Your task to perform on an android device: toggle improve location accuracy Image 0: 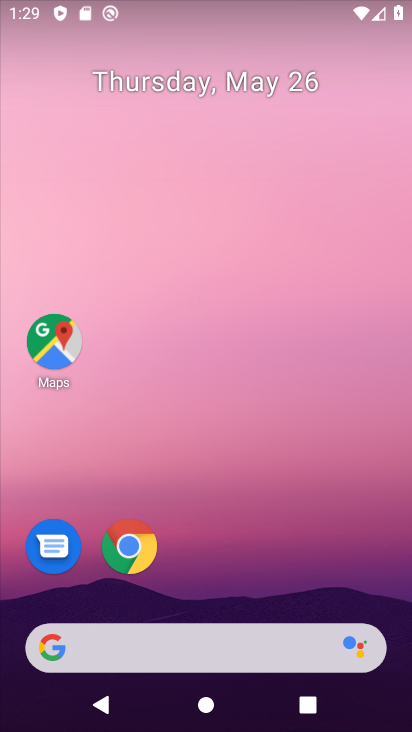
Step 0: drag from (203, 552) to (254, 46)
Your task to perform on an android device: toggle improve location accuracy Image 1: 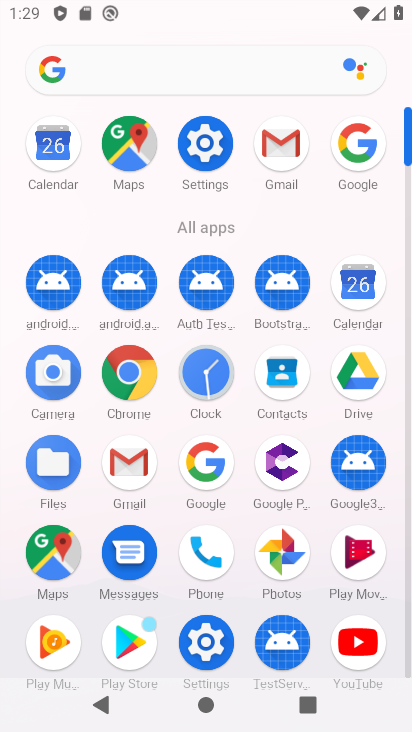
Step 1: click (211, 139)
Your task to perform on an android device: toggle improve location accuracy Image 2: 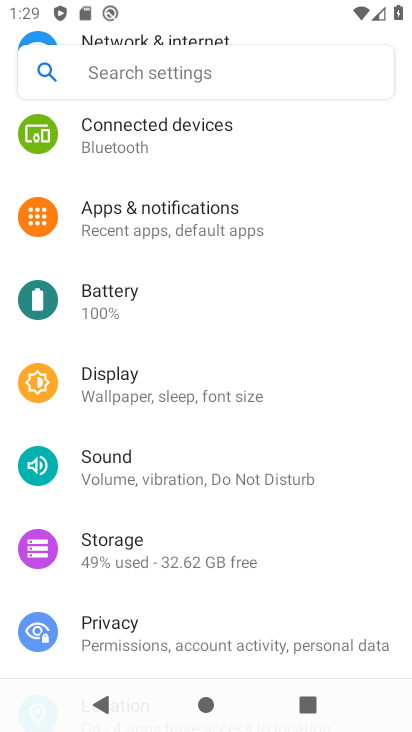
Step 2: drag from (213, 541) to (215, 356)
Your task to perform on an android device: toggle improve location accuracy Image 3: 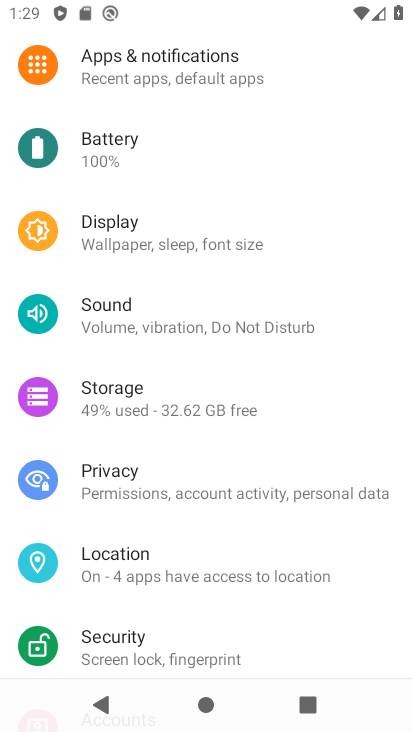
Step 3: click (177, 574)
Your task to perform on an android device: toggle improve location accuracy Image 4: 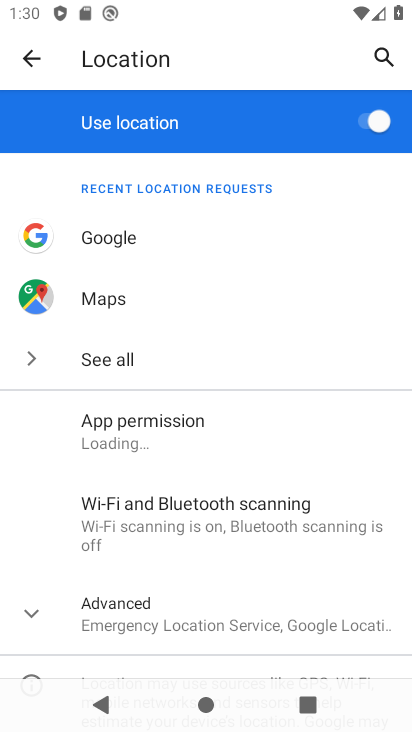
Step 4: click (153, 614)
Your task to perform on an android device: toggle improve location accuracy Image 5: 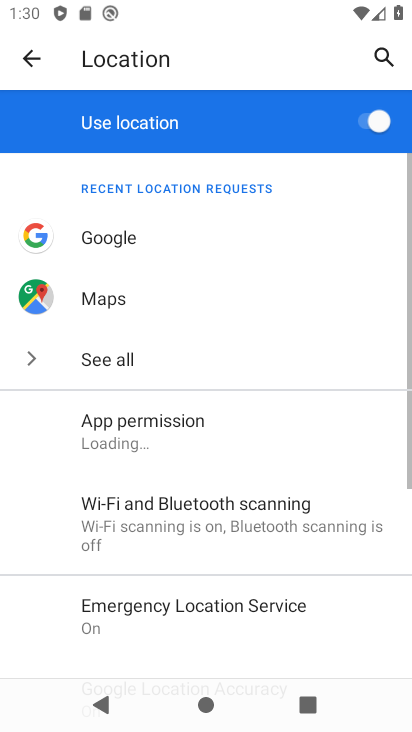
Step 5: drag from (263, 526) to (271, 179)
Your task to perform on an android device: toggle improve location accuracy Image 6: 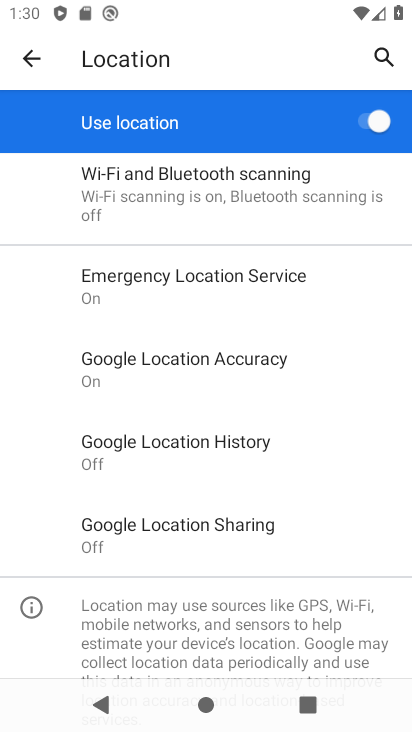
Step 6: click (180, 363)
Your task to perform on an android device: toggle improve location accuracy Image 7: 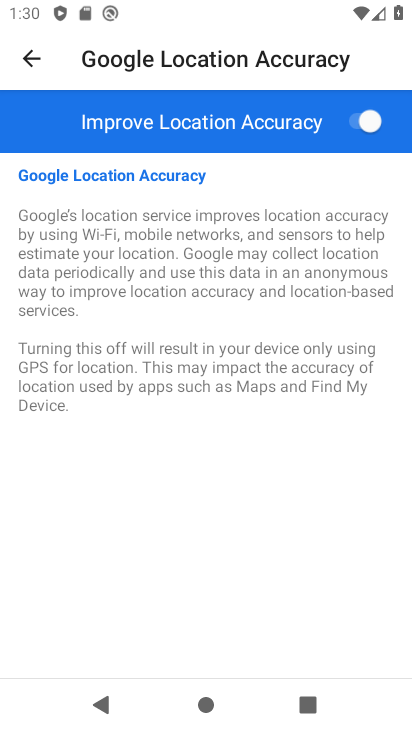
Step 7: click (354, 111)
Your task to perform on an android device: toggle improve location accuracy Image 8: 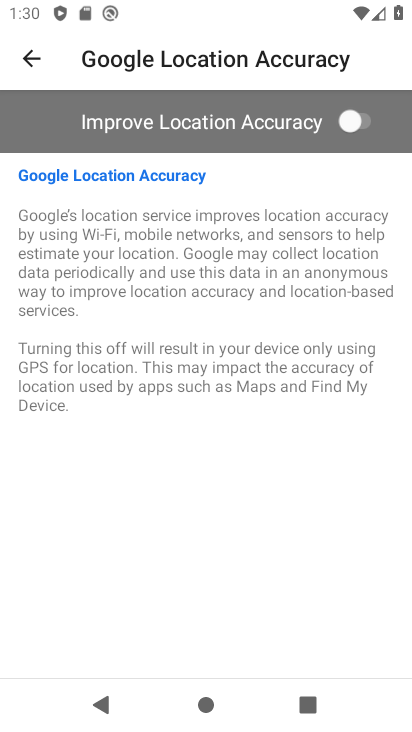
Step 8: task complete